Your task to perform on an android device: change keyboard looks Image 0: 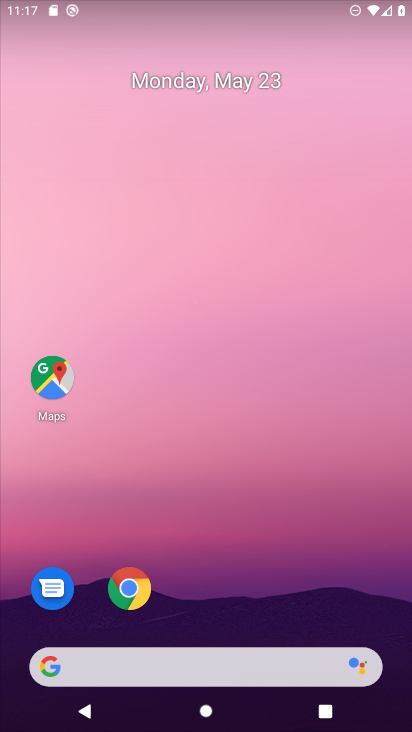
Step 0: drag from (254, 553) to (324, 101)
Your task to perform on an android device: change keyboard looks Image 1: 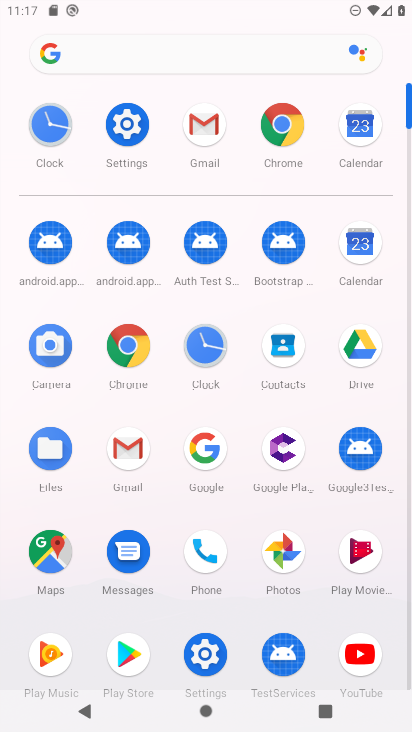
Step 1: click (128, 126)
Your task to perform on an android device: change keyboard looks Image 2: 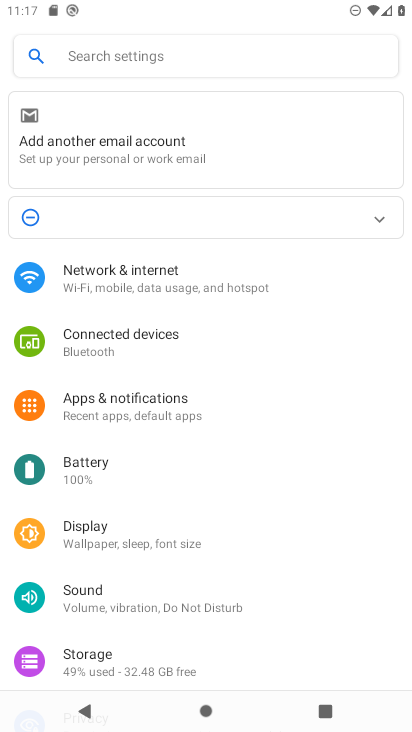
Step 2: drag from (171, 640) to (253, 385)
Your task to perform on an android device: change keyboard looks Image 3: 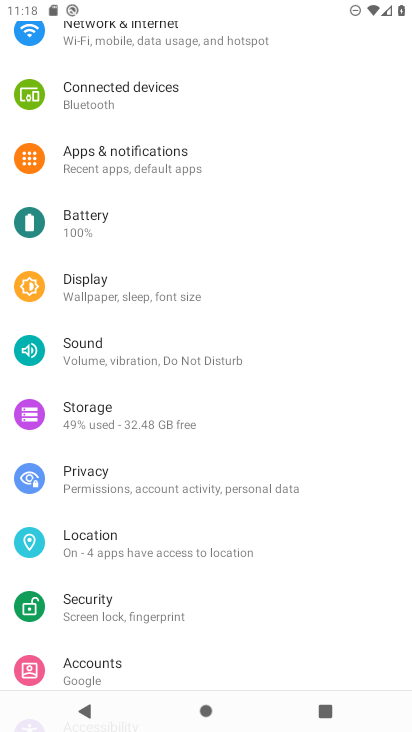
Step 3: drag from (148, 666) to (297, 218)
Your task to perform on an android device: change keyboard looks Image 4: 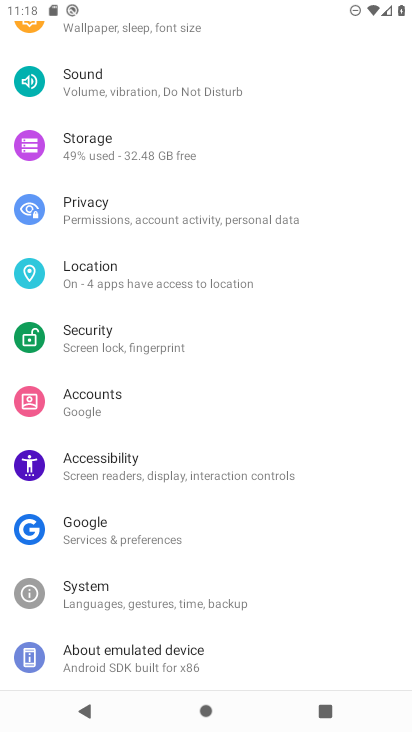
Step 4: click (150, 608)
Your task to perform on an android device: change keyboard looks Image 5: 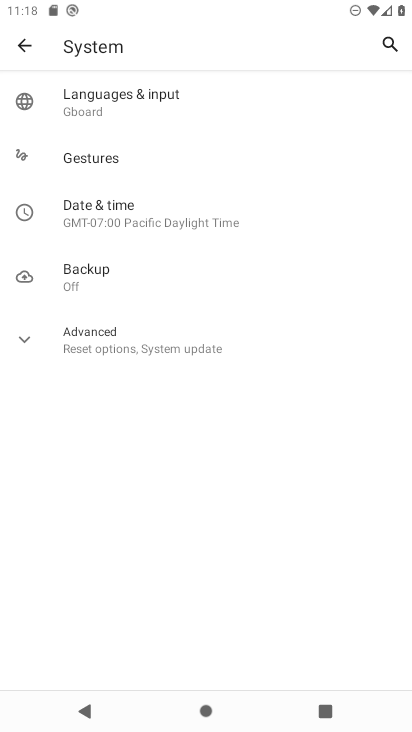
Step 5: click (140, 97)
Your task to perform on an android device: change keyboard looks Image 6: 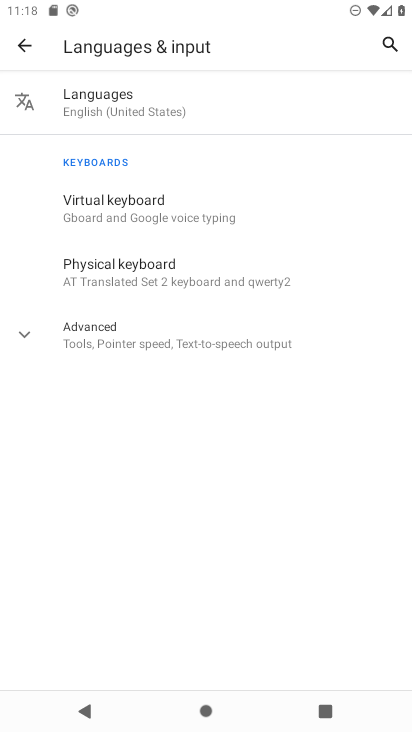
Step 6: click (114, 213)
Your task to perform on an android device: change keyboard looks Image 7: 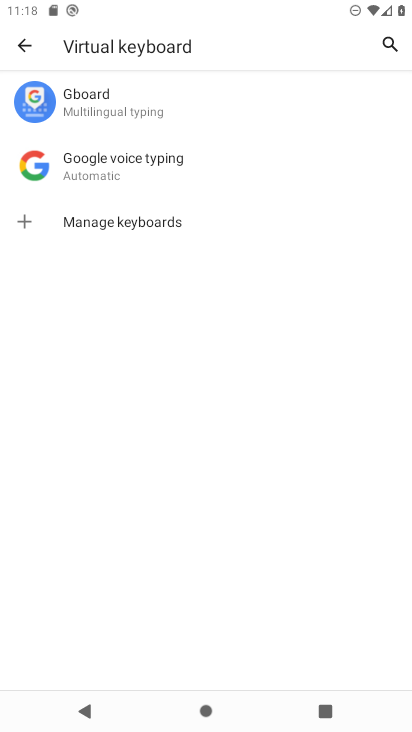
Step 7: click (99, 105)
Your task to perform on an android device: change keyboard looks Image 8: 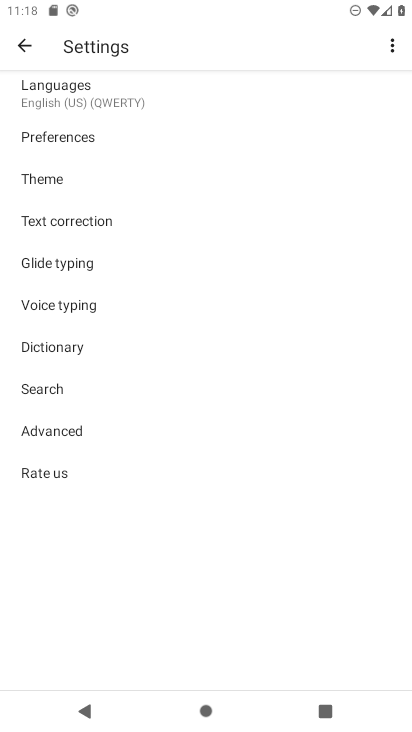
Step 8: click (55, 169)
Your task to perform on an android device: change keyboard looks Image 9: 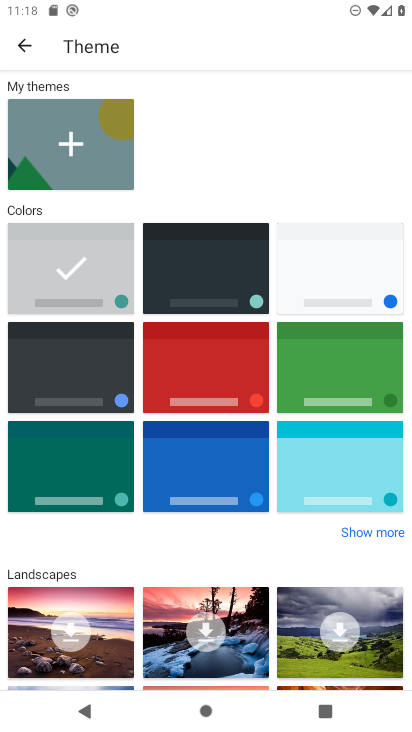
Step 9: click (350, 271)
Your task to perform on an android device: change keyboard looks Image 10: 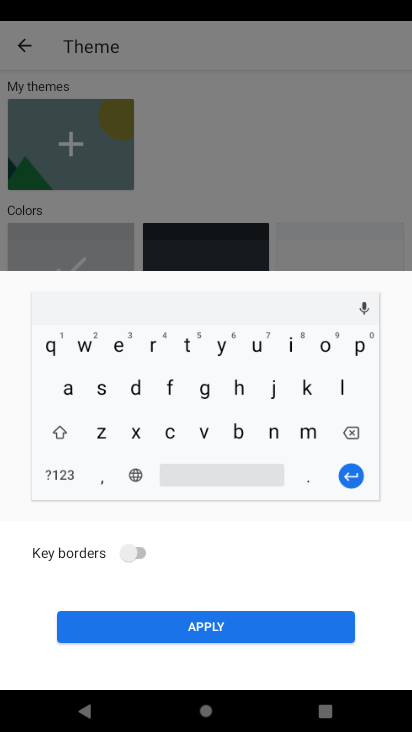
Step 10: click (185, 625)
Your task to perform on an android device: change keyboard looks Image 11: 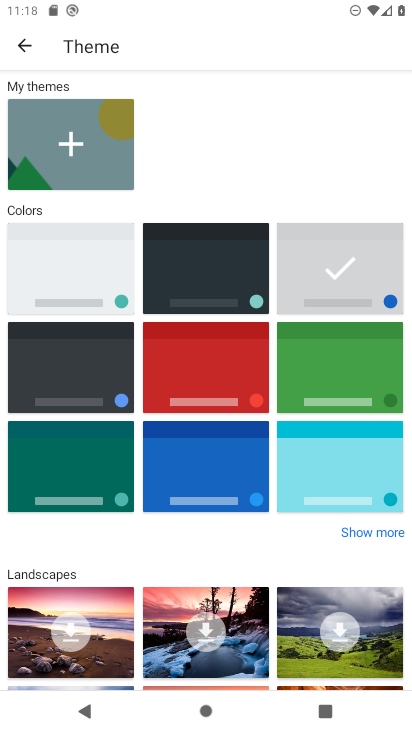
Step 11: task complete